Your task to perform on an android device: Go to ESPN.com Image 0: 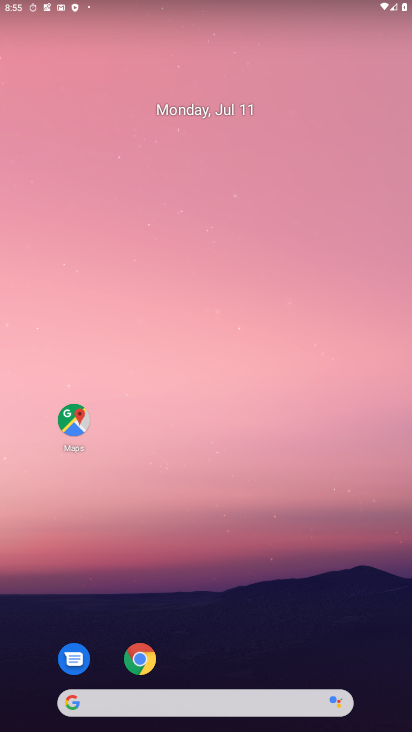
Step 0: drag from (202, 625) to (122, 202)
Your task to perform on an android device: Go to ESPN.com Image 1: 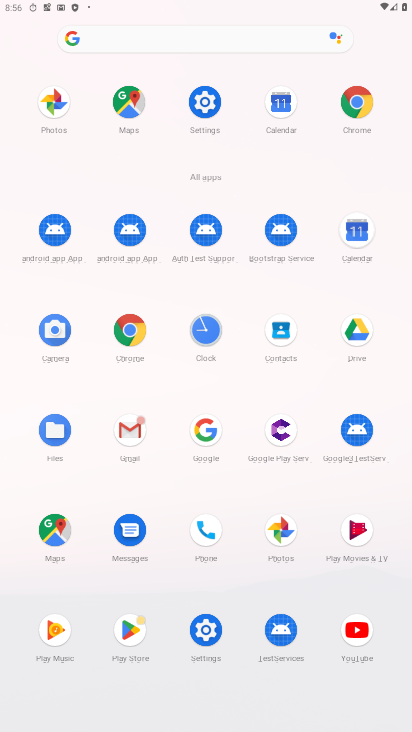
Step 1: click (346, 109)
Your task to perform on an android device: Go to ESPN.com Image 2: 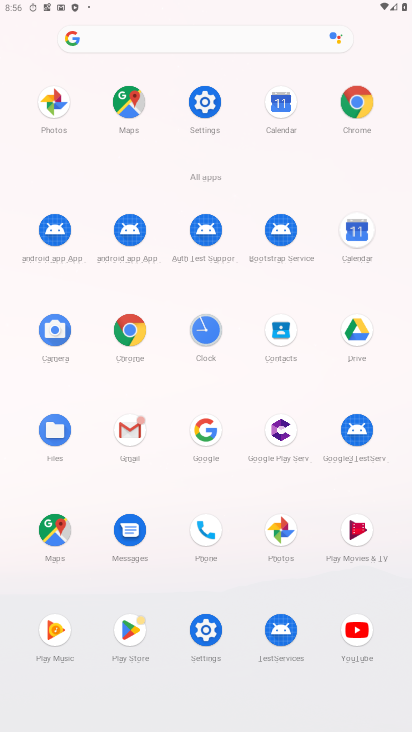
Step 2: click (350, 107)
Your task to perform on an android device: Go to ESPN.com Image 3: 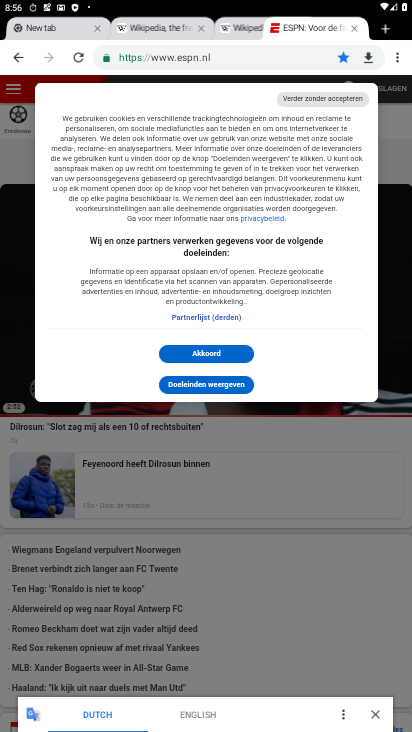
Step 3: click (204, 351)
Your task to perform on an android device: Go to ESPN.com Image 4: 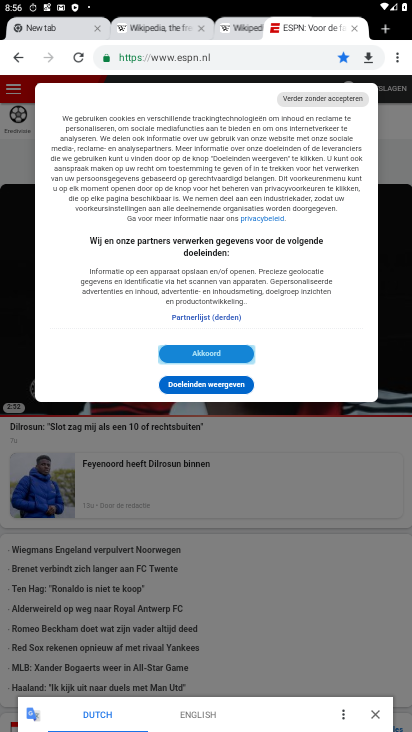
Step 4: click (204, 351)
Your task to perform on an android device: Go to ESPN.com Image 5: 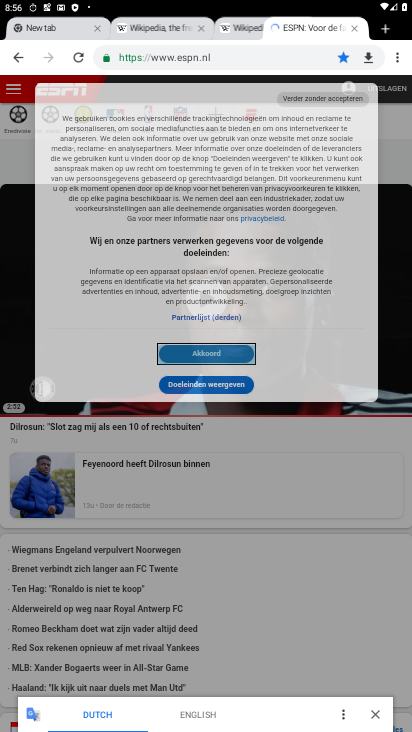
Step 5: click (214, 343)
Your task to perform on an android device: Go to ESPN.com Image 6: 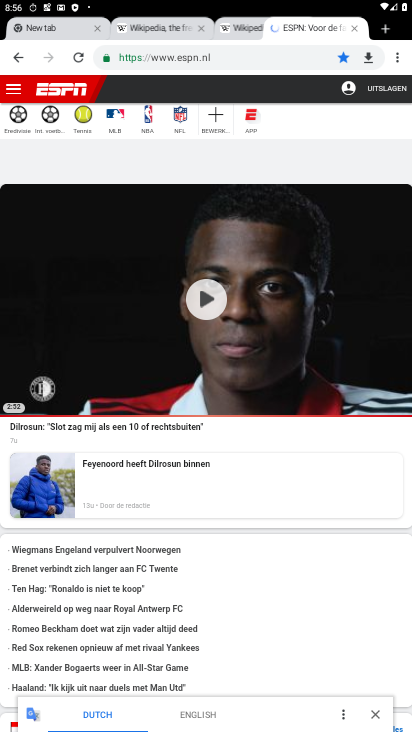
Step 6: task complete